Your task to perform on an android device: Add bose quietcomfort 35 to the cart on ebay Image 0: 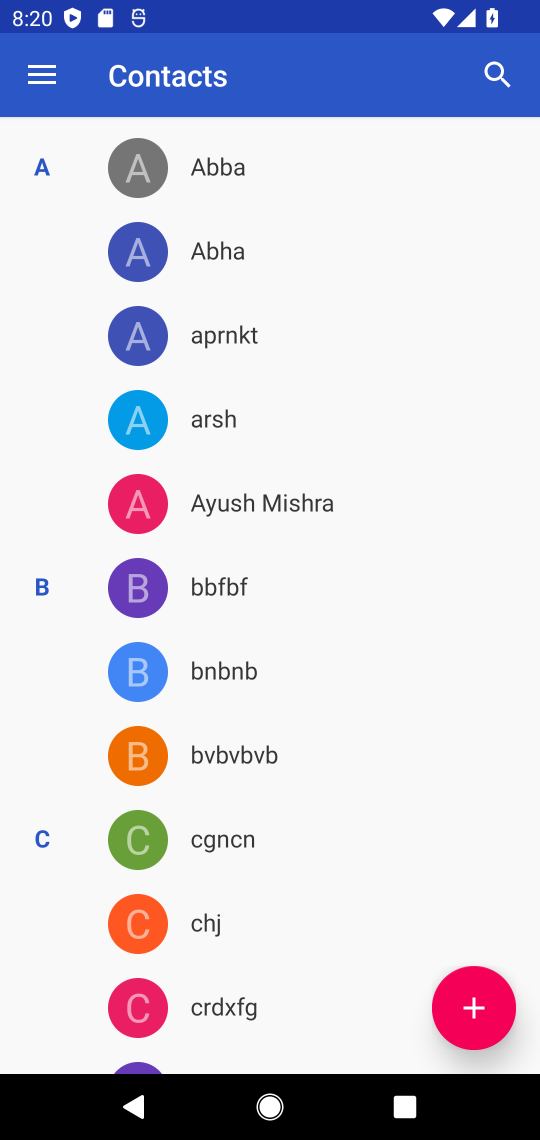
Step 0: press home button
Your task to perform on an android device: Add bose quietcomfort 35 to the cart on ebay Image 1: 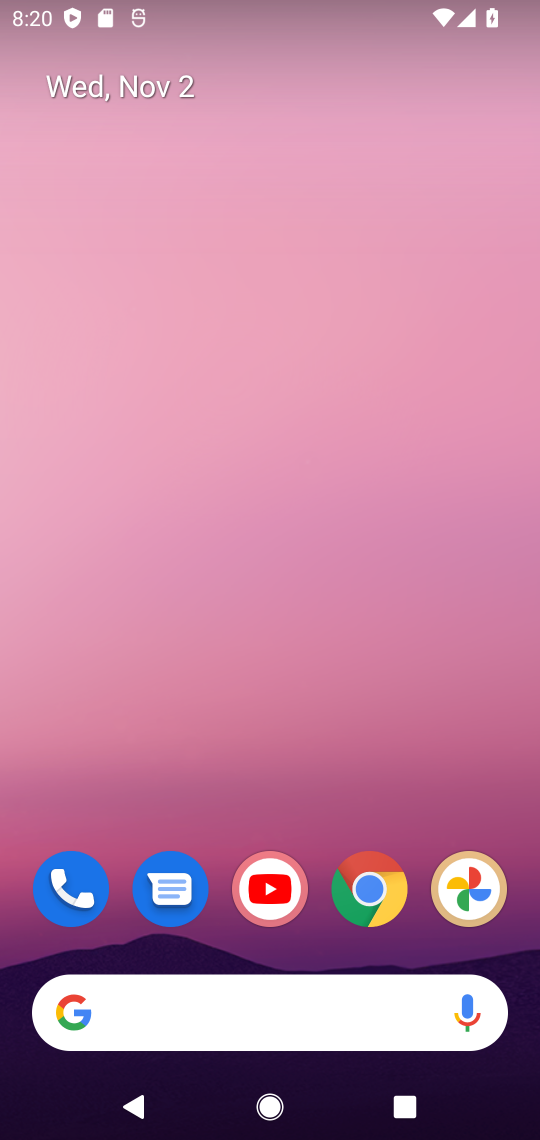
Step 1: drag from (277, 821) to (168, 5)
Your task to perform on an android device: Add bose quietcomfort 35 to the cart on ebay Image 2: 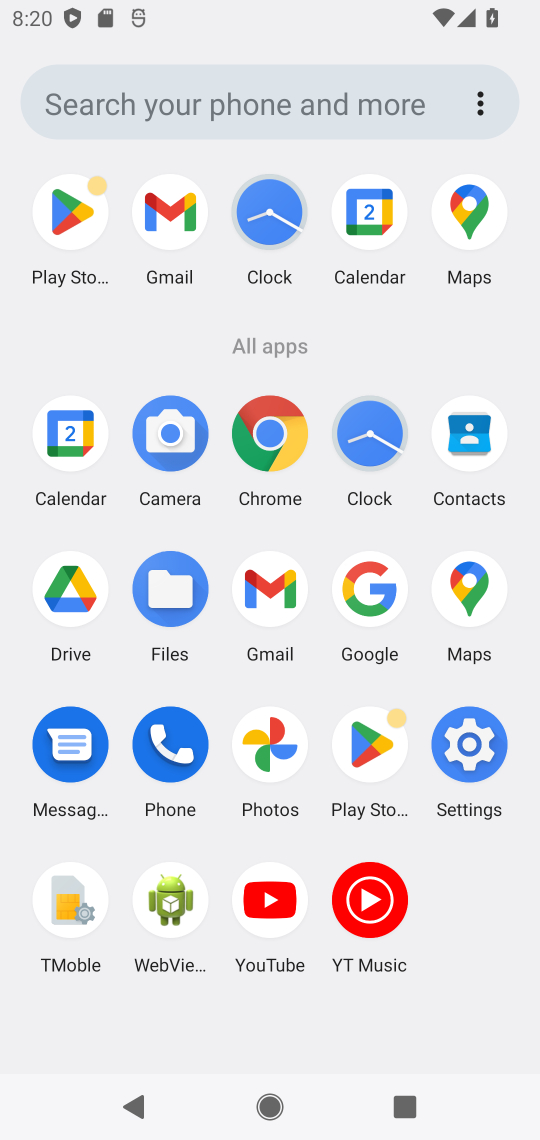
Step 2: click (268, 426)
Your task to perform on an android device: Add bose quietcomfort 35 to the cart on ebay Image 3: 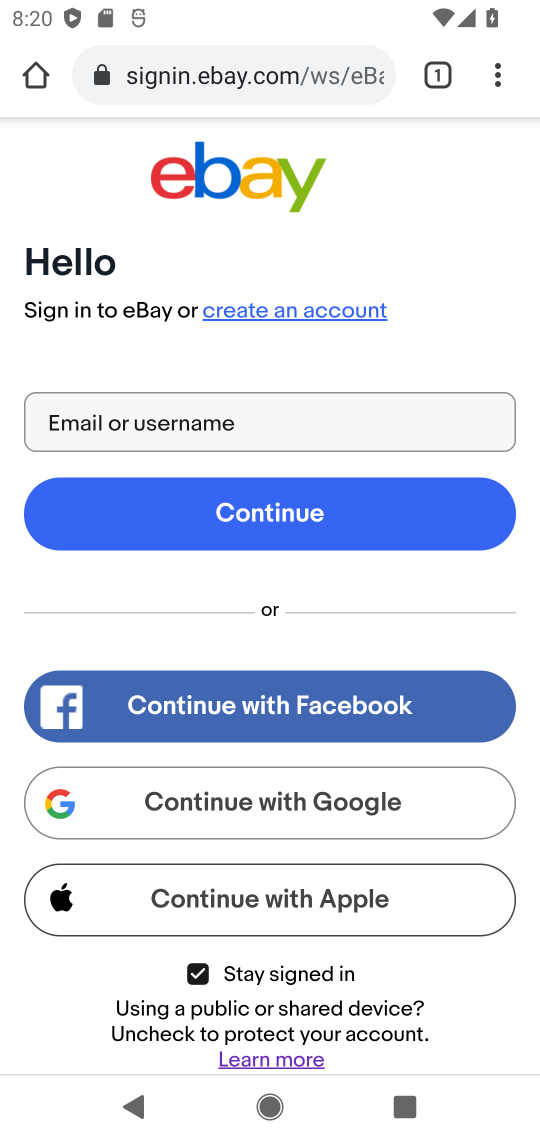
Step 3: press back button
Your task to perform on an android device: Add bose quietcomfort 35 to the cart on ebay Image 4: 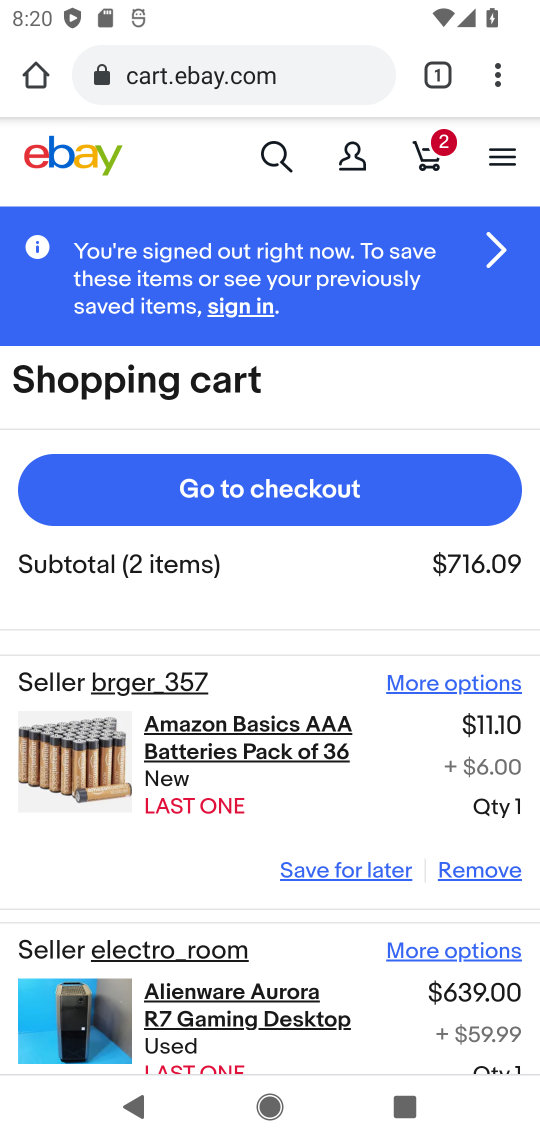
Step 4: click (253, 156)
Your task to perform on an android device: Add bose quietcomfort 35 to the cart on ebay Image 5: 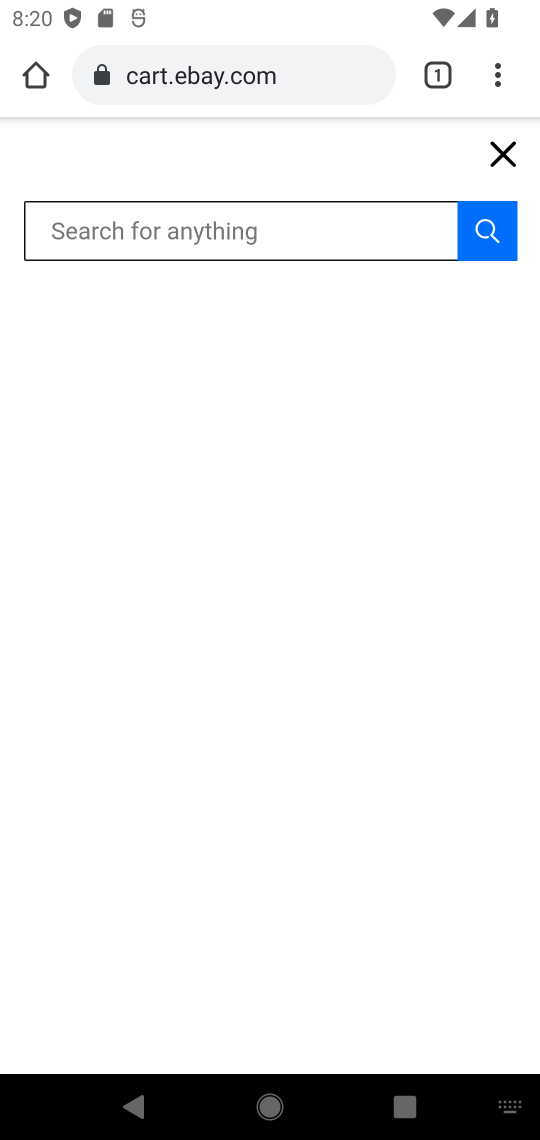
Step 5: type "bose quietcomfort 35"
Your task to perform on an android device: Add bose quietcomfort 35 to the cart on ebay Image 6: 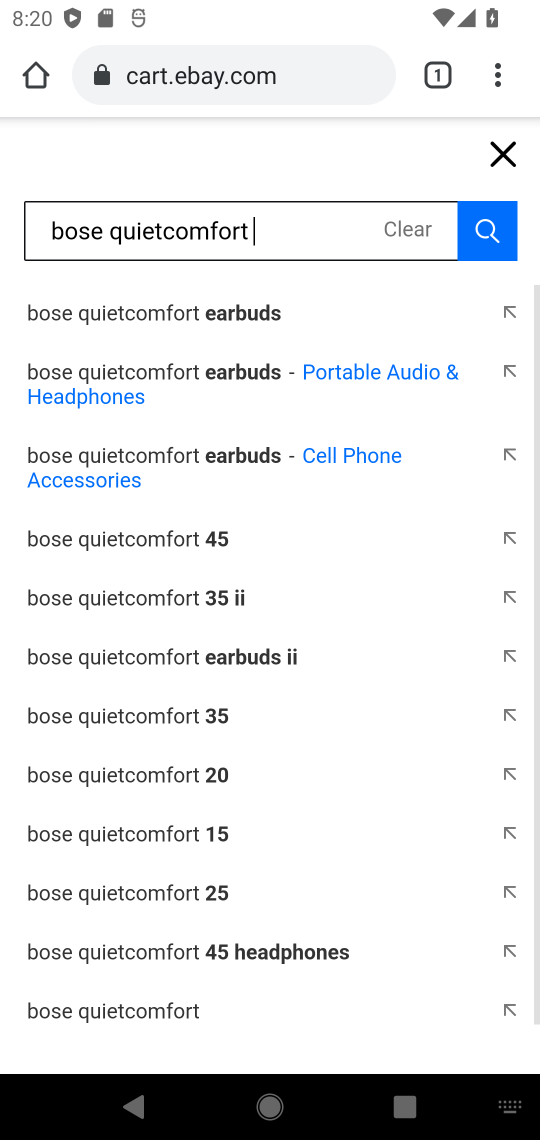
Step 6: type ""
Your task to perform on an android device: Add bose quietcomfort 35 to the cart on ebay Image 7: 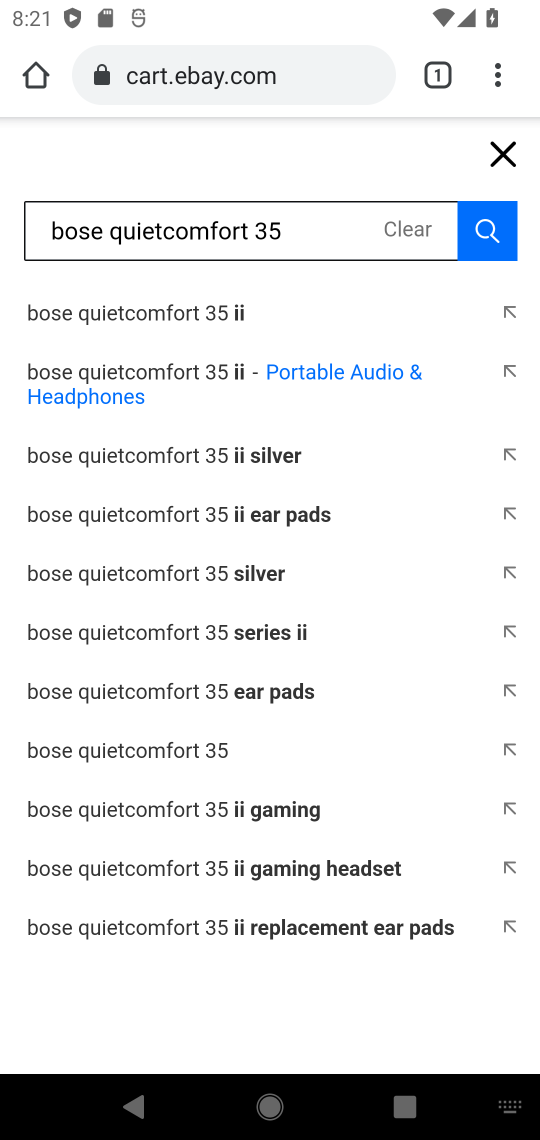
Step 7: click (186, 385)
Your task to perform on an android device: Add bose quietcomfort 35 to the cart on ebay Image 8: 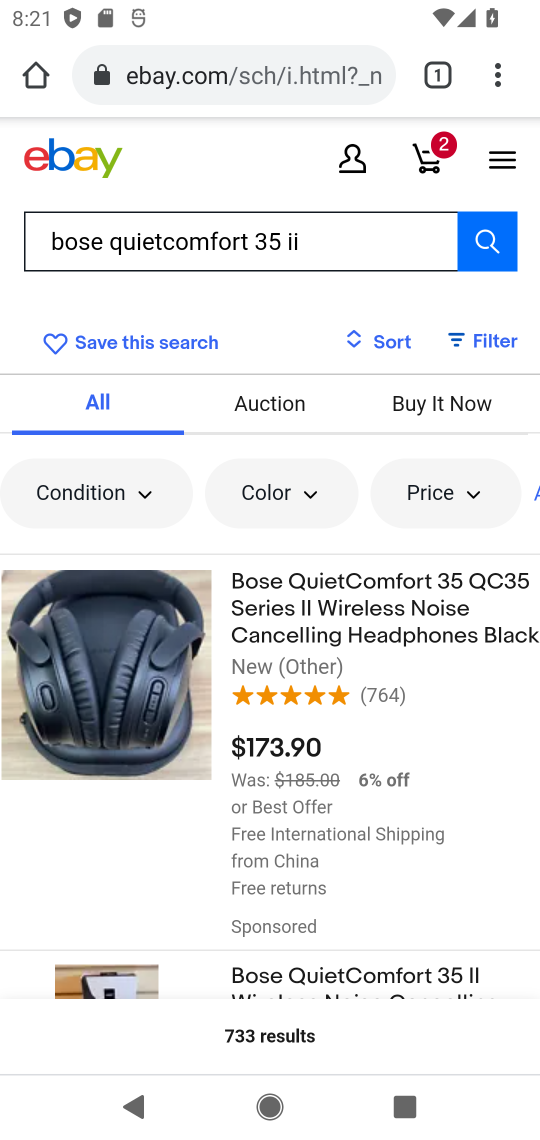
Step 8: click (289, 621)
Your task to perform on an android device: Add bose quietcomfort 35 to the cart on ebay Image 9: 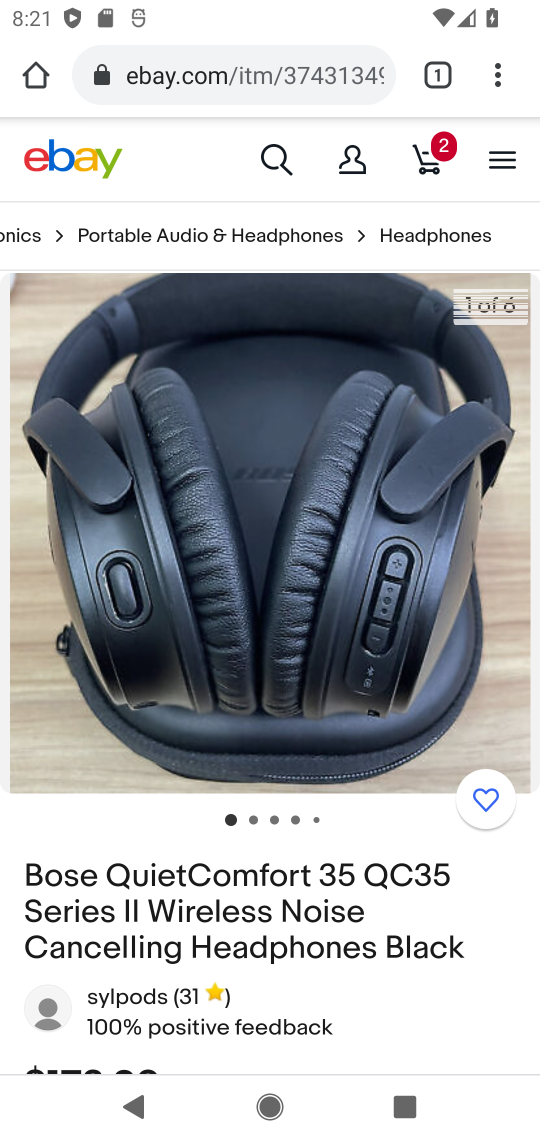
Step 9: drag from (345, 747) to (299, 343)
Your task to perform on an android device: Add bose quietcomfort 35 to the cart on ebay Image 10: 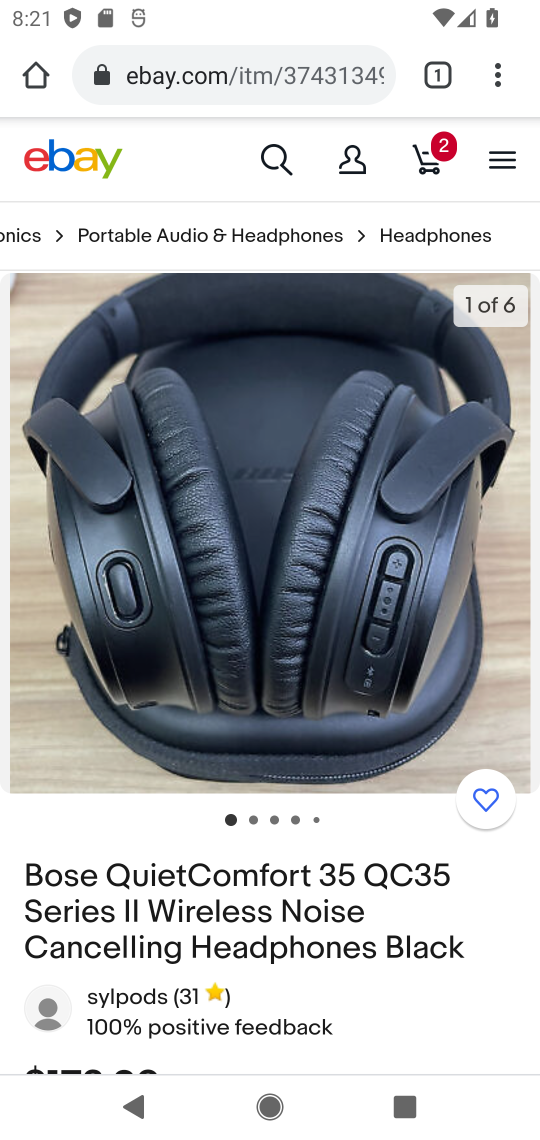
Step 10: drag from (293, 990) to (282, 325)
Your task to perform on an android device: Add bose quietcomfort 35 to the cart on ebay Image 11: 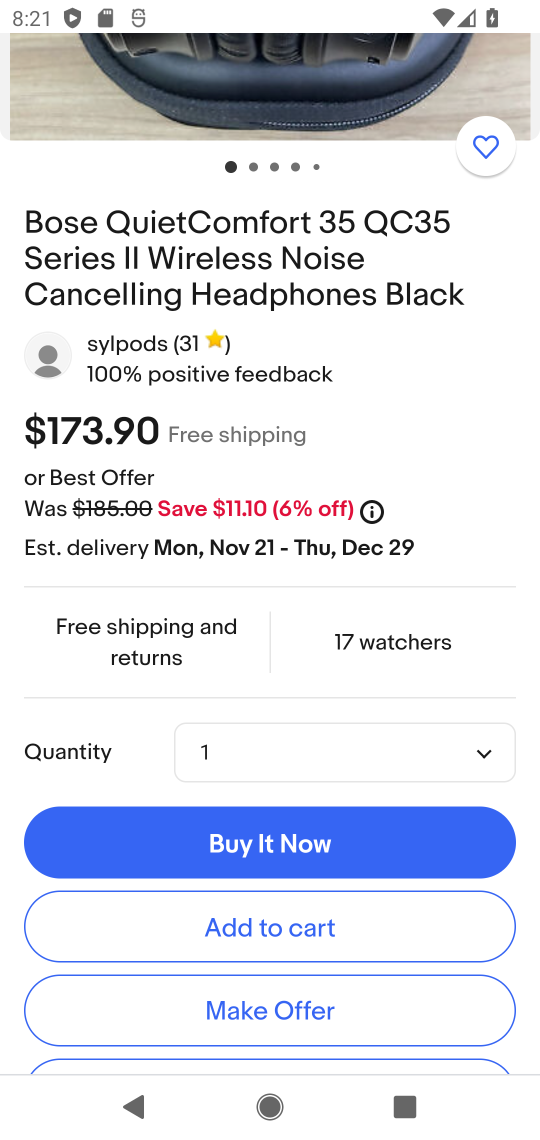
Step 11: click (290, 936)
Your task to perform on an android device: Add bose quietcomfort 35 to the cart on ebay Image 12: 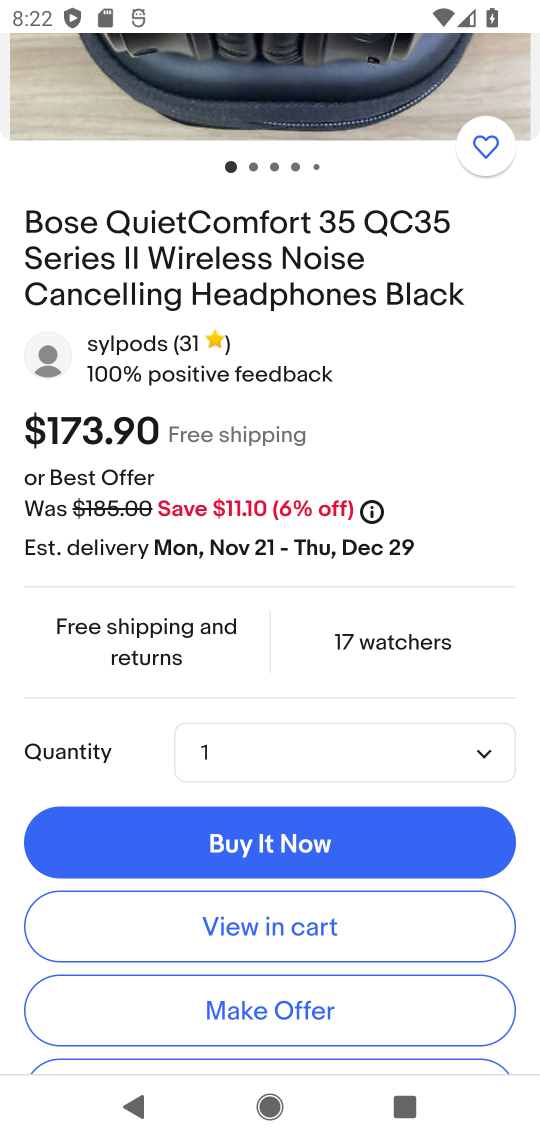
Step 12: click (269, 934)
Your task to perform on an android device: Add bose quietcomfort 35 to the cart on ebay Image 13: 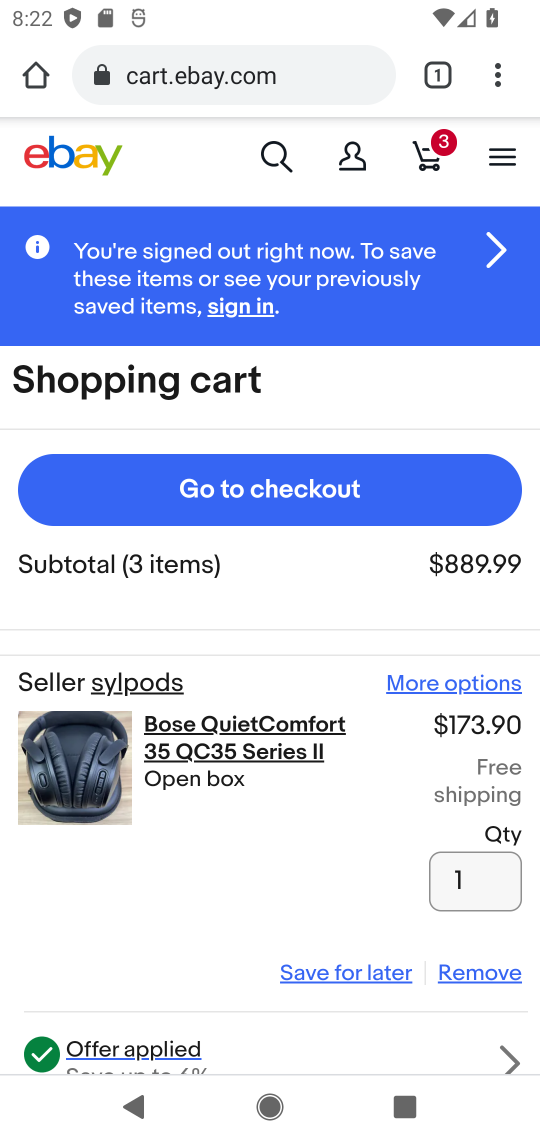
Step 13: click (248, 489)
Your task to perform on an android device: Add bose quietcomfort 35 to the cart on ebay Image 14: 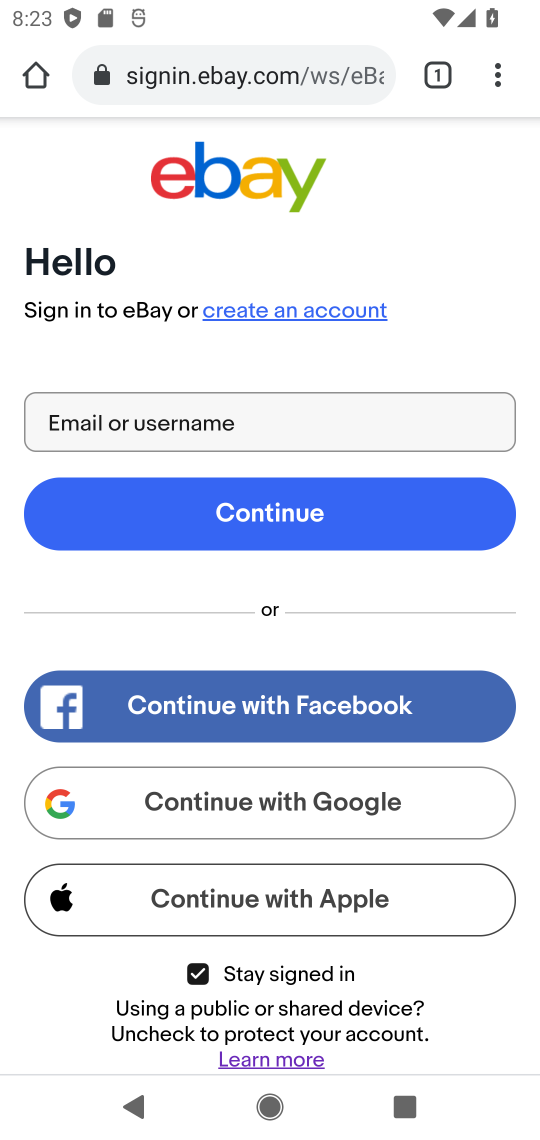
Step 14: task complete